Your task to perform on an android device: turn on location history Image 0: 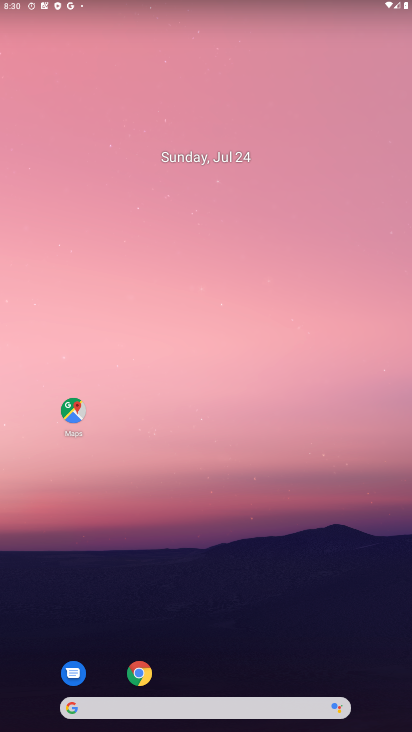
Step 0: drag from (45, 658) to (120, 309)
Your task to perform on an android device: turn on location history Image 1: 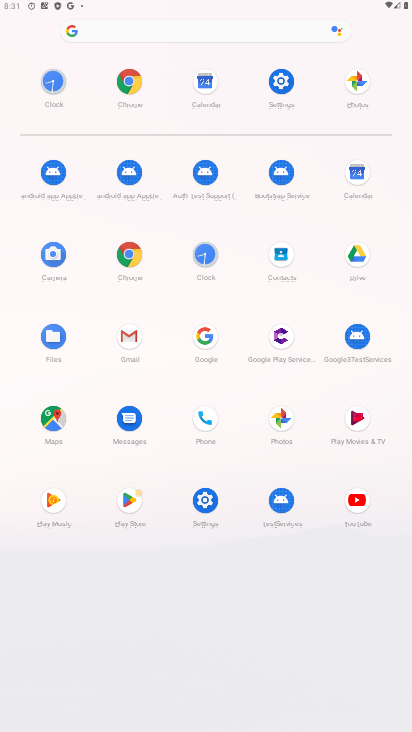
Step 1: click (203, 509)
Your task to perform on an android device: turn on location history Image 2: 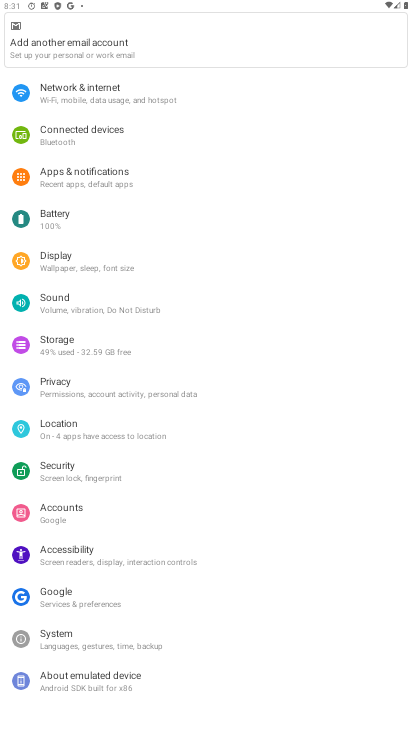
Step 2: click (47, 422)
Your task to perform on an android device: turn on location history Image 3: 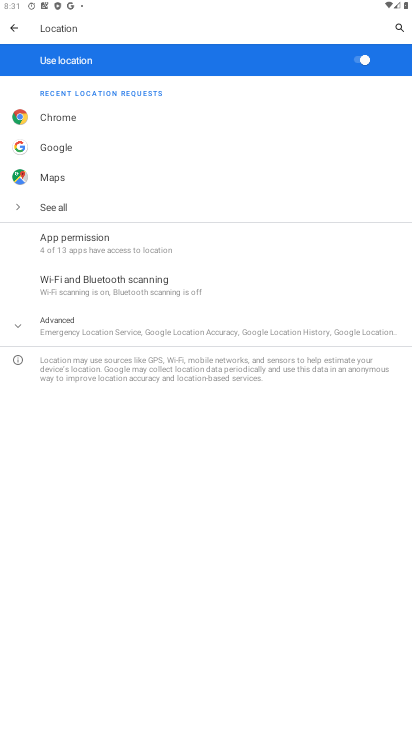
Step 3: click (82, 307)
Your task to perform on an android device: turn on location history Image 4: 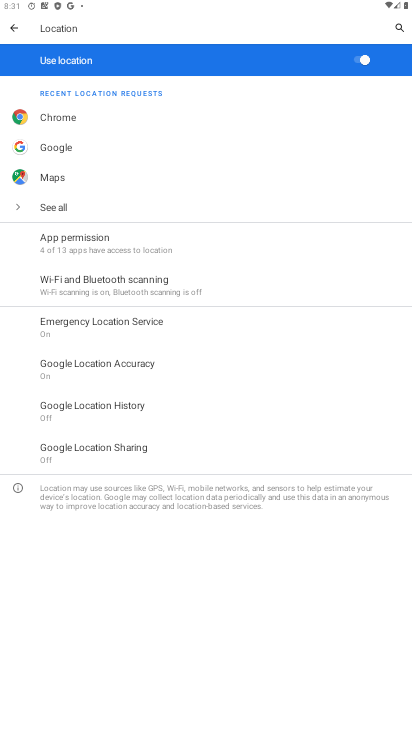
Step 4: click (65, 415)
Your task to perform on an android device: turn on location history Image 5: 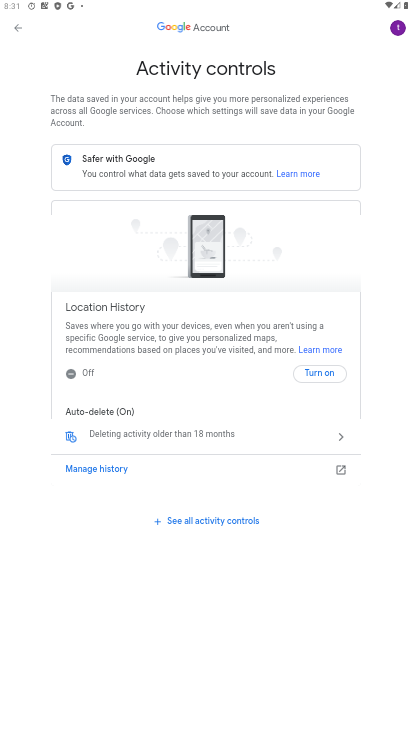
Step 5: click (323, 375)
Your task to perform on an android device: turn on location history Image 6: 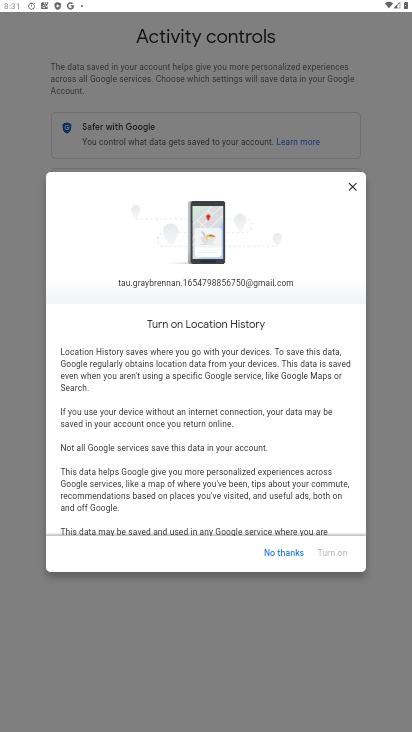
Step 6: click (325, 551)
Your task to perform on an android device: turn on location history Image 7: 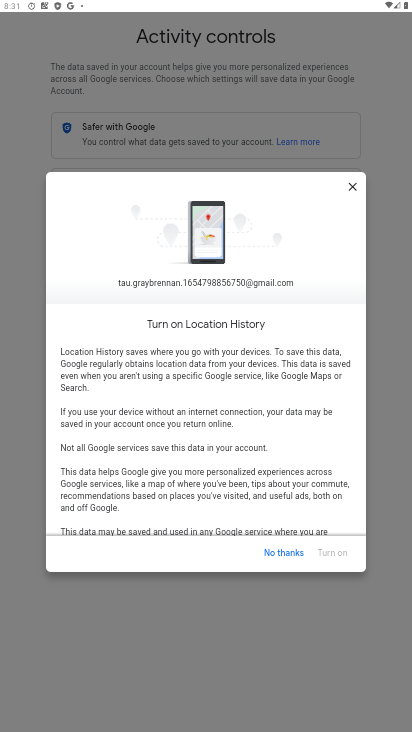
Step 7: drag from (291, 508) to (243, 216)
Your task to perform on an android device: turn on location history Image 8: 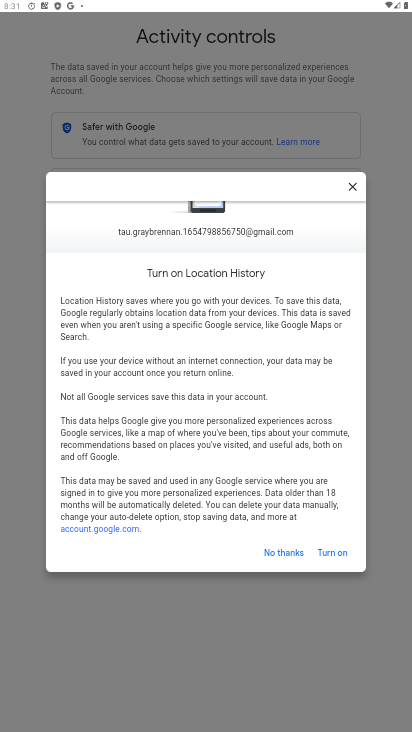
Step 8: drag from (243, 421) to (268, 305)
Your task to perform on an android device: turn on location history Image 9: 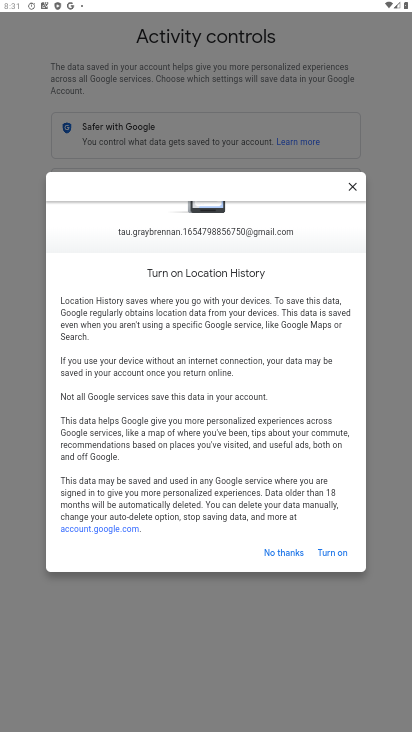
Step 9: click (326, 549)
Your task to perform on an android device: turn on location history Image 10: 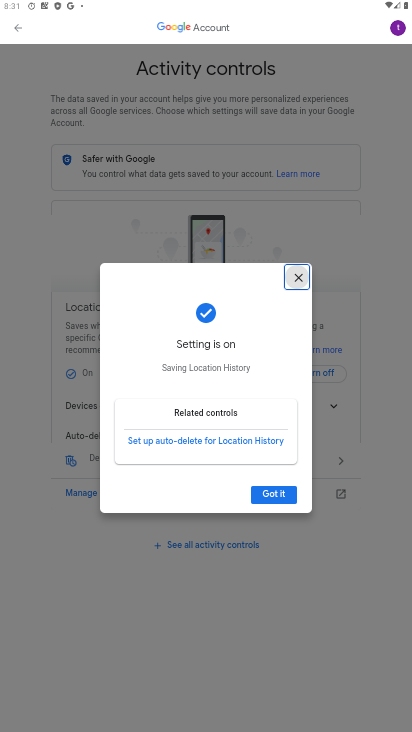
Step 10: click (271, 483)
Your task to perform on an android device: turn on location history Image 11: 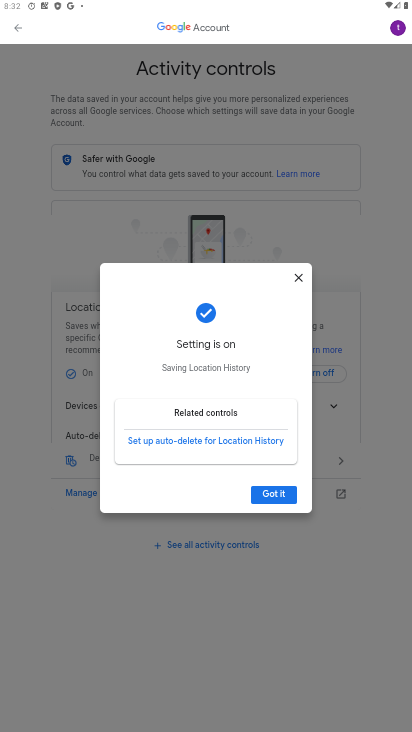
Step 11: click (267, 495)
Your task to perform on an android device: turn on location history Image 12: 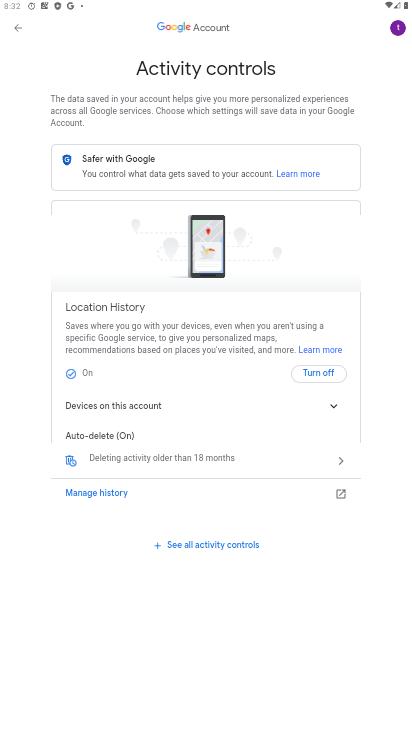
Step 12: task complete